Your task to perform on an android device: check data usage Image 0: 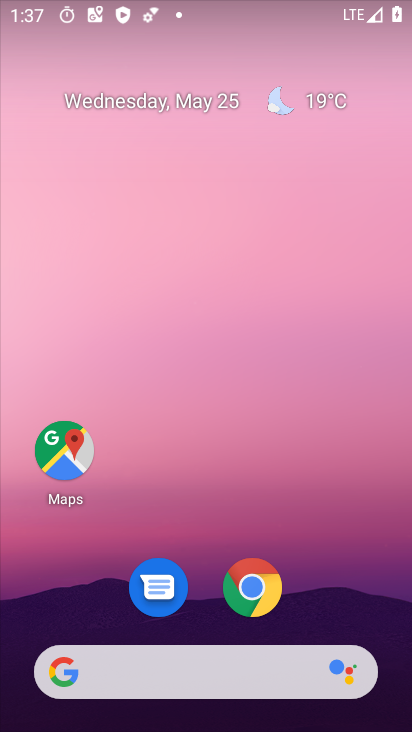
Step 0: drag from (195, 469) to (190, 29)
Your task to perform on an android device: check data usage Image 1: 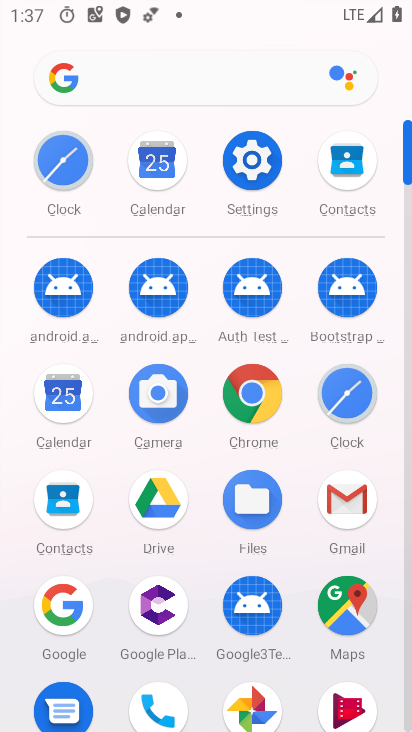
Step 1: click (258, 156)
Your task to perform on an android device: check data usage Image 2: 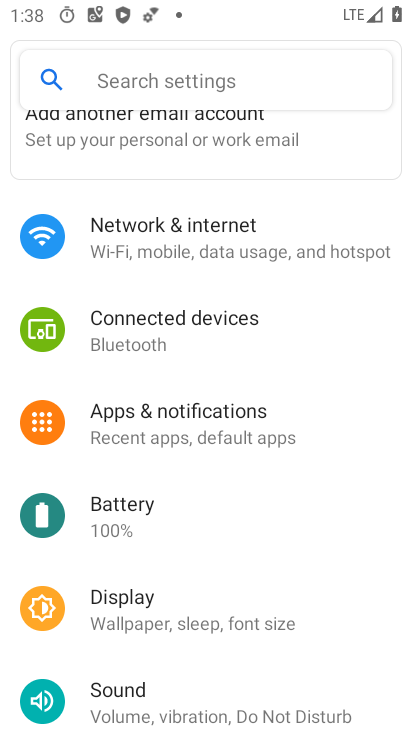
Step 2: click (165, 235)
Your task to perform on an android device: check data usage Image 3: 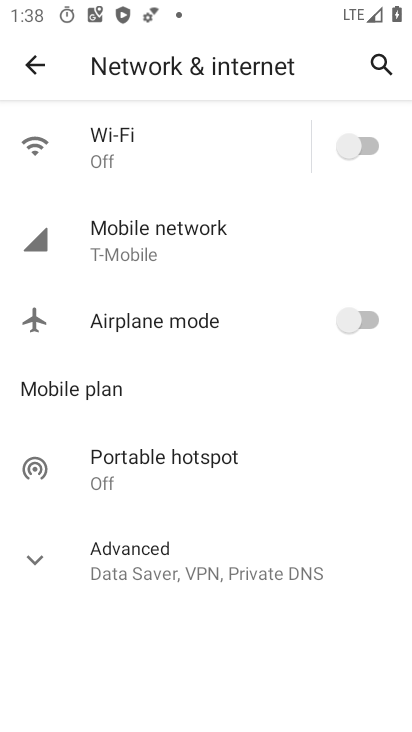
Step 3: click (151, 230)
Your task to perform on an android device: check data usage Image 4: 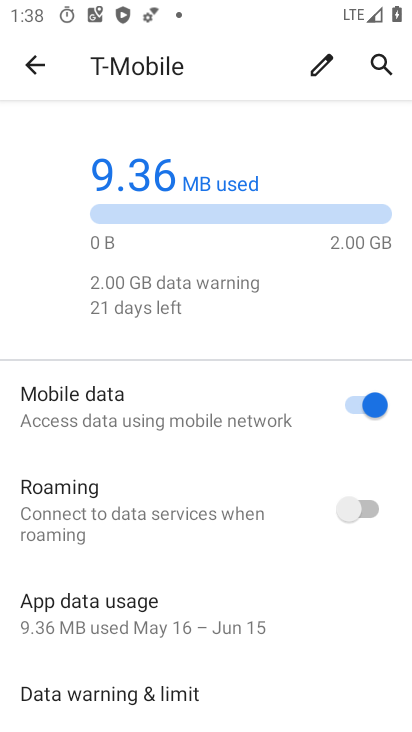
Step 4: drag from (120, 589) to (124, 408)
Your task to perform on an android device: check data usage Image 5: 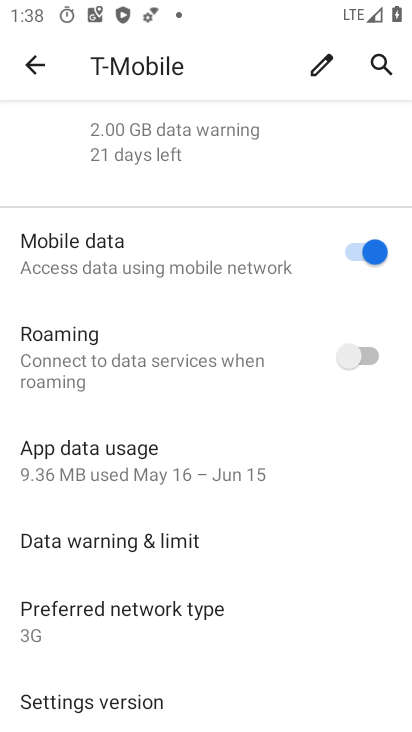
Step 5: click (134, 448)
Your task to perform on an android device: check data usage Image 6: 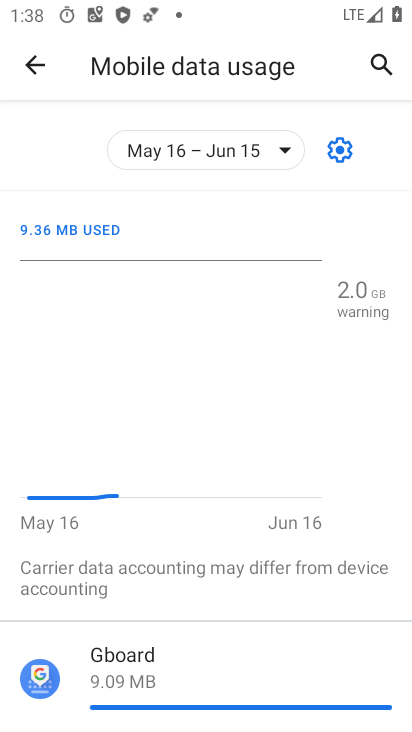
Step 6: task complete